Your task to perform on an android device: Search for the new Nintendo switch on Best Buy Image 0: 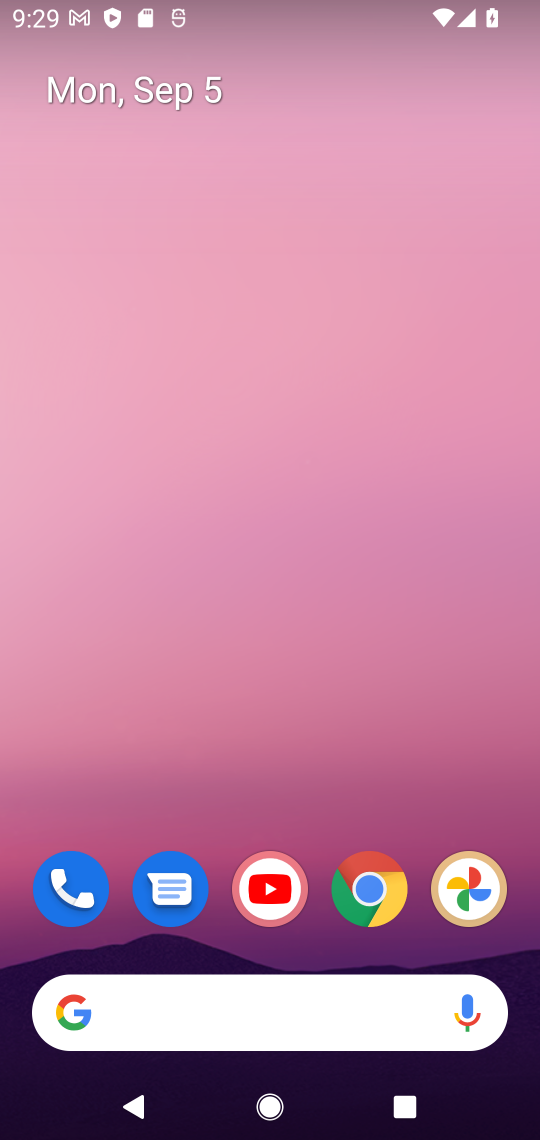
Step 0: press home button
Your task to perform on an android device: Search for the new Nintendo switch on Best Buy Image 1: 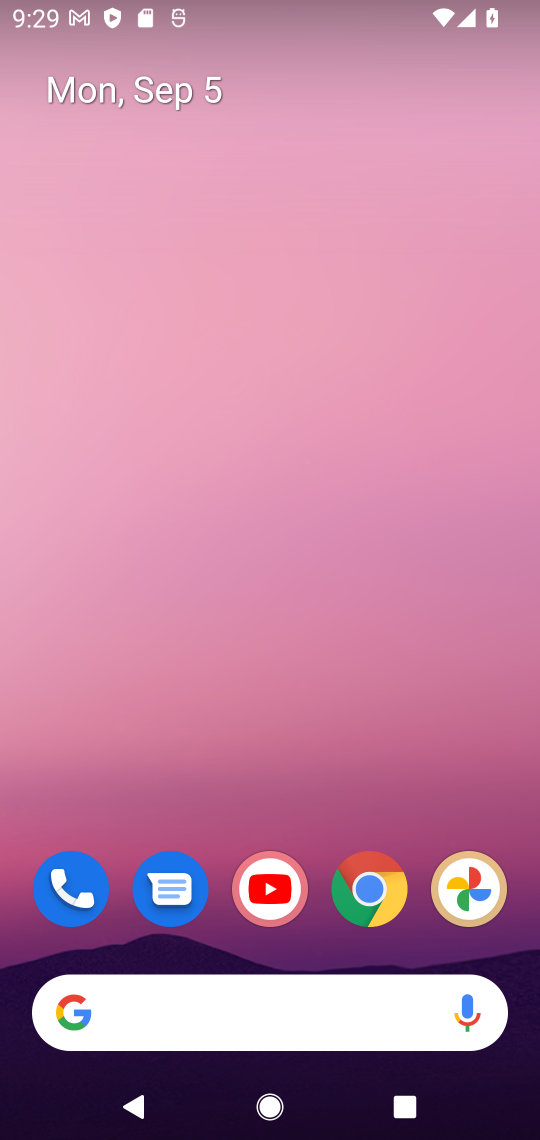
Step 1: click (226, 999)
Your task to perform on an android device: Search for the new Nintendo switch on Best Buy Image 2: 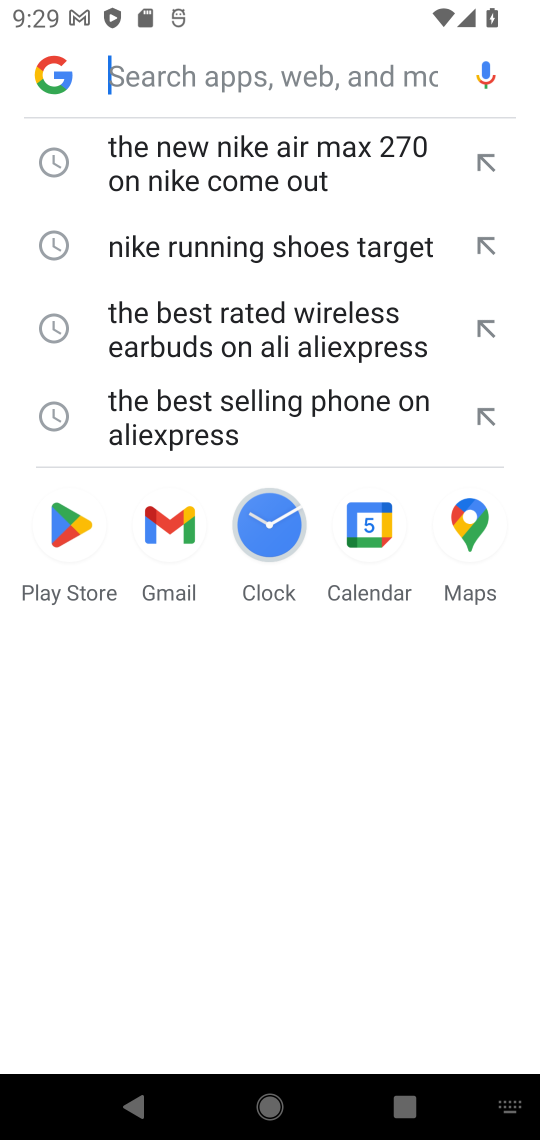
Step 2: type "the new Nintendo switch on Best Buy"
Your task to perform on an android device: Search for the new Nintendo switch on Best Buy Image 3: 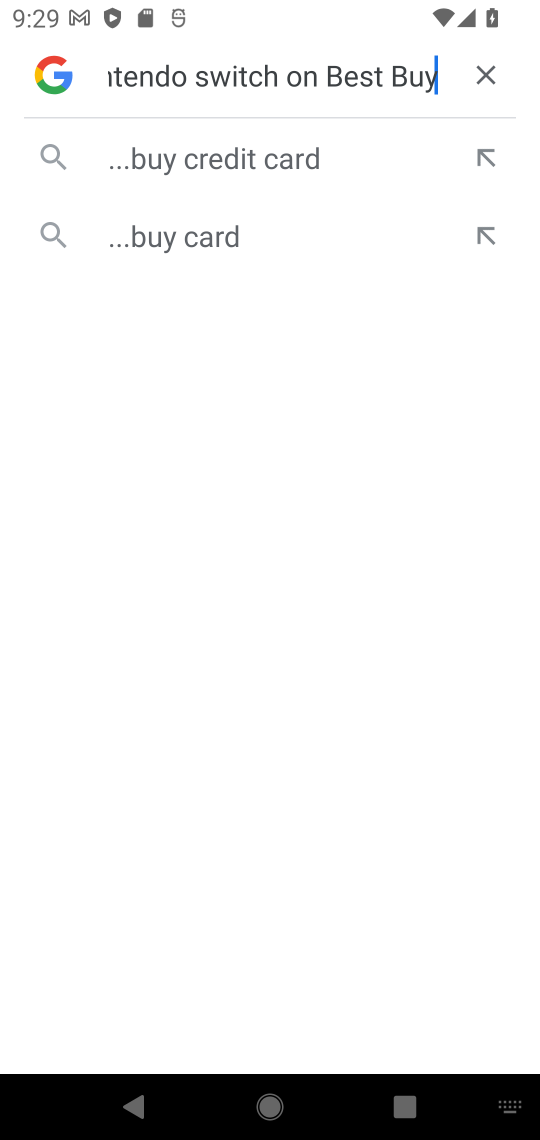
Step 3: click (148, 165)
Your task to perform on an android device: Search for the new Nintendo switch on Best Buy Image 4: 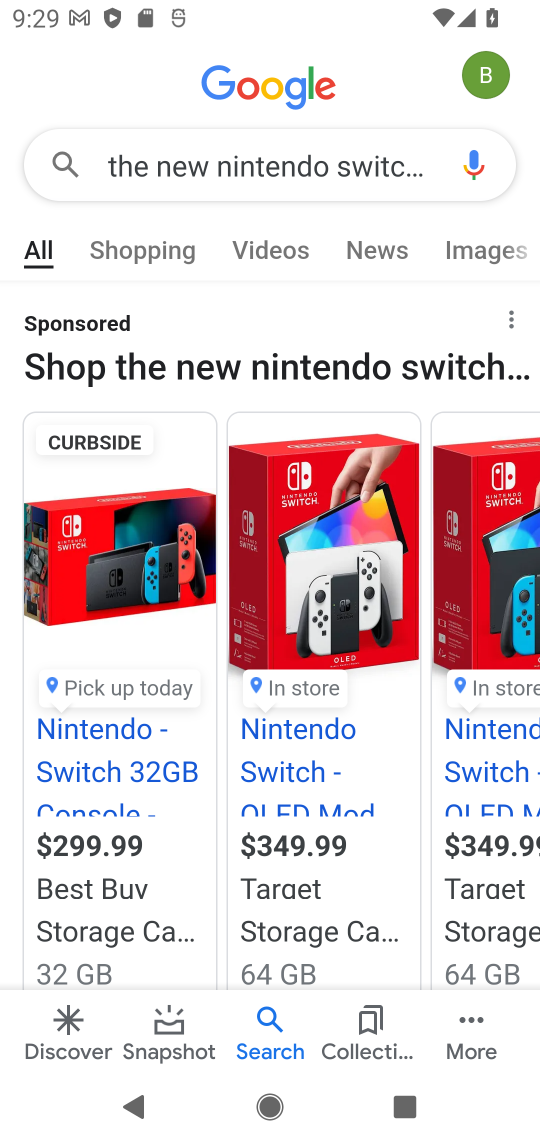
Step 4: drag from (380, 758) to (389, 94)
Your task to perform on an android device: Search for the new Nintendo switch on Best Buy Image 5: 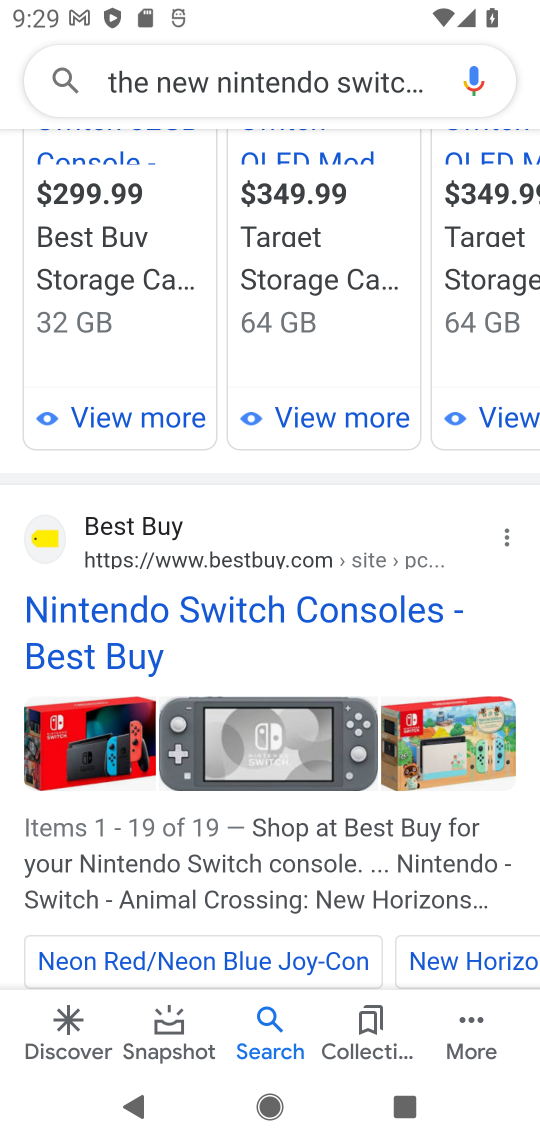
Step 5: click (428, 135)
Your task to perform on an android device: Search for the new Nintendo switch on Best Buy Image 6: 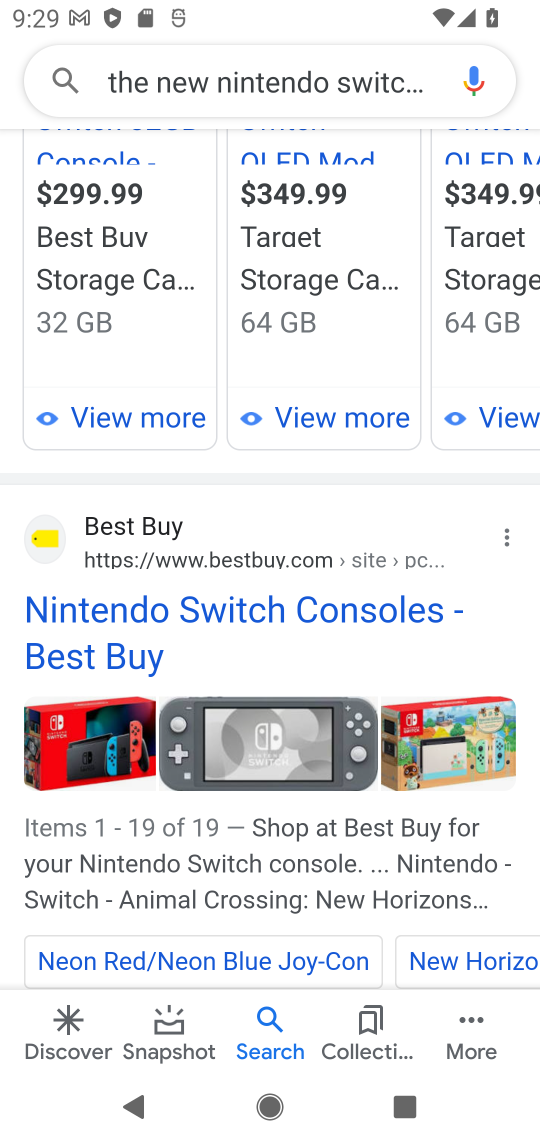
Step 6: task complete